Your task to perform on an android device: manage bookmarks in the chrome app Image 0: 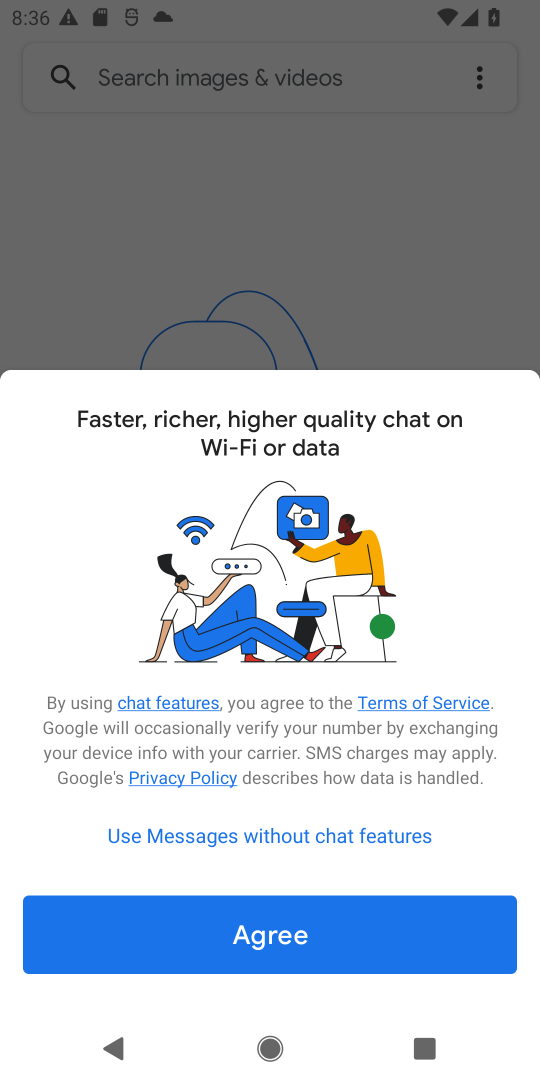
Step 0: press home button
Your task to perform on an android device: manage bookmarks in the chrome app Image 1: 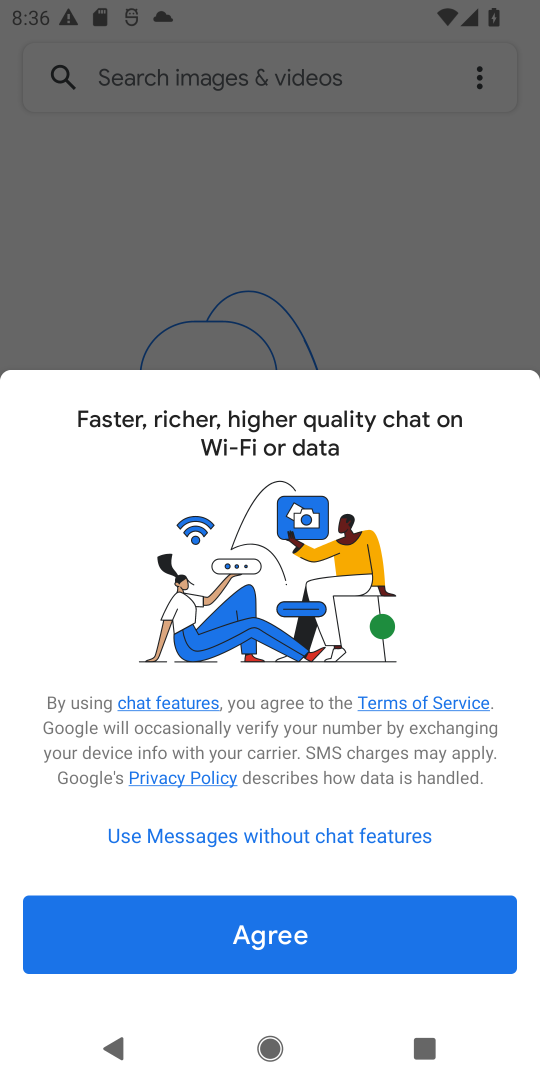
Step 1: press home button
Your task to perform on an android device: manage bookmarks in the chrome app Image 2: 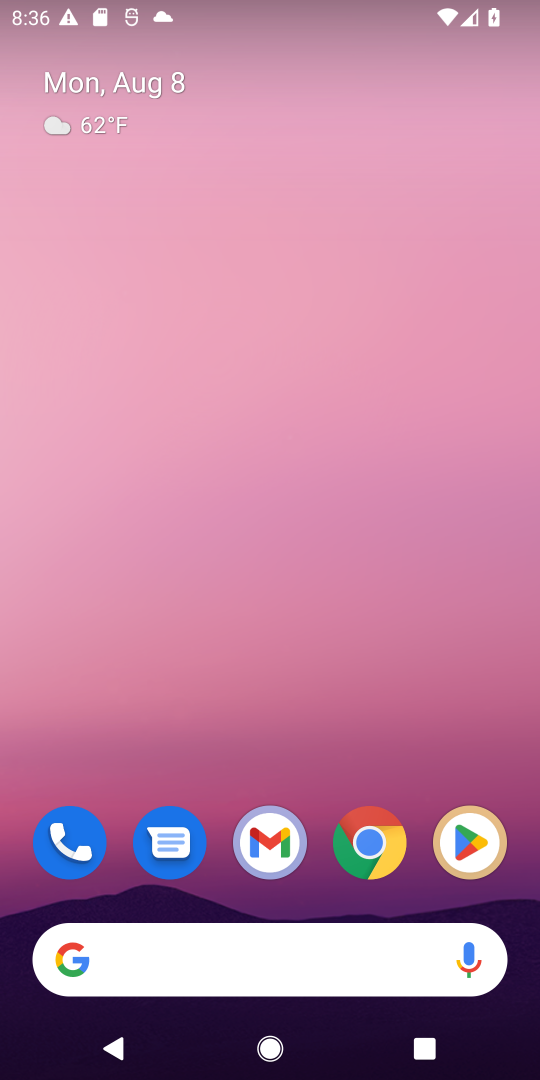
Step 2: click (359, 844)
Your task to perform on an android device: manage bookmarks in the chrome app Image 3: 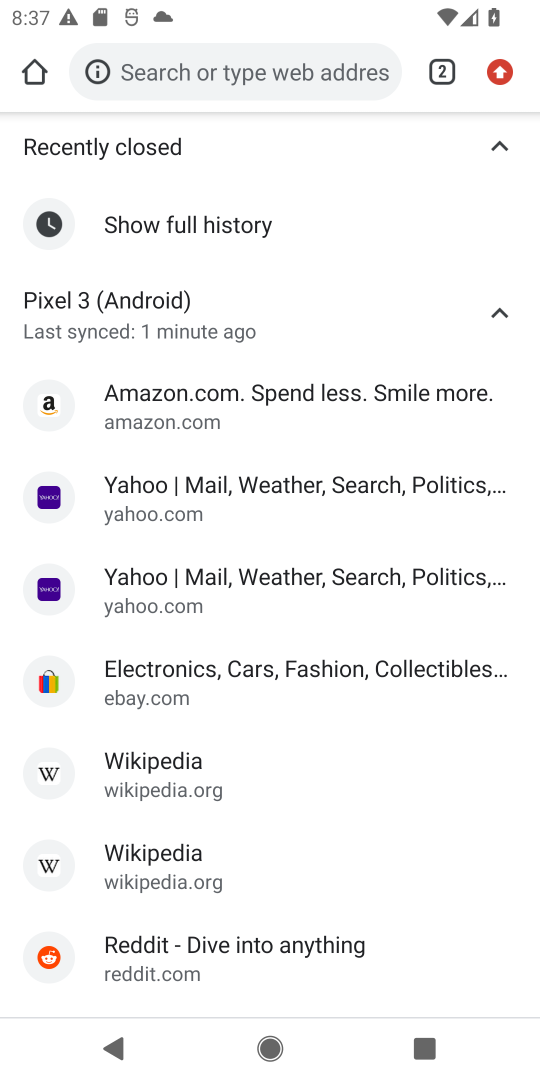
Step 3: click (504, 64)
Your task to perform on an android device: manage bookmarks in the chrome app Image 4: 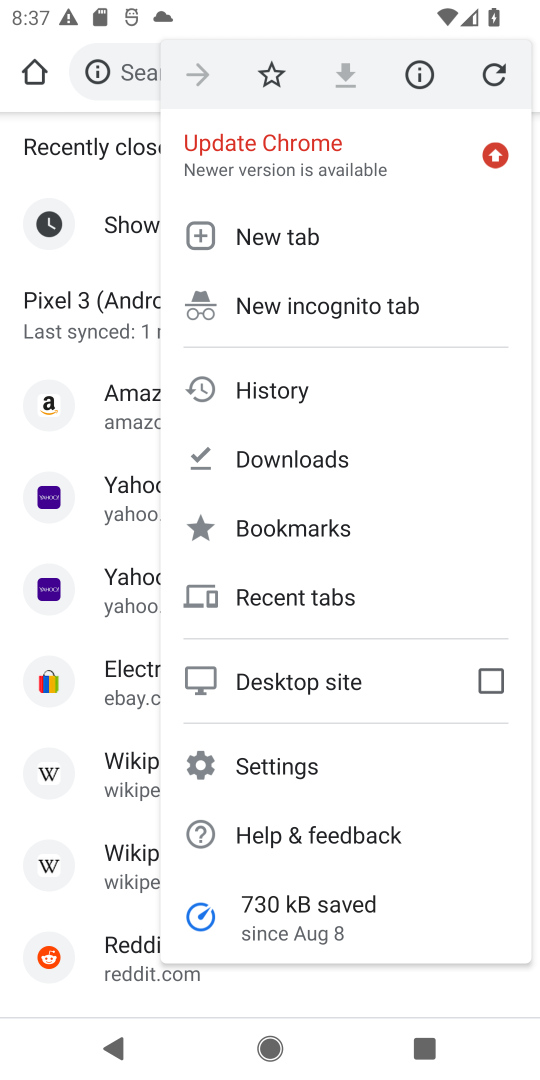
Step 4: click (316, 764)
Your task to perform on an android device: manage bookmarks in the chrome app Image 5: 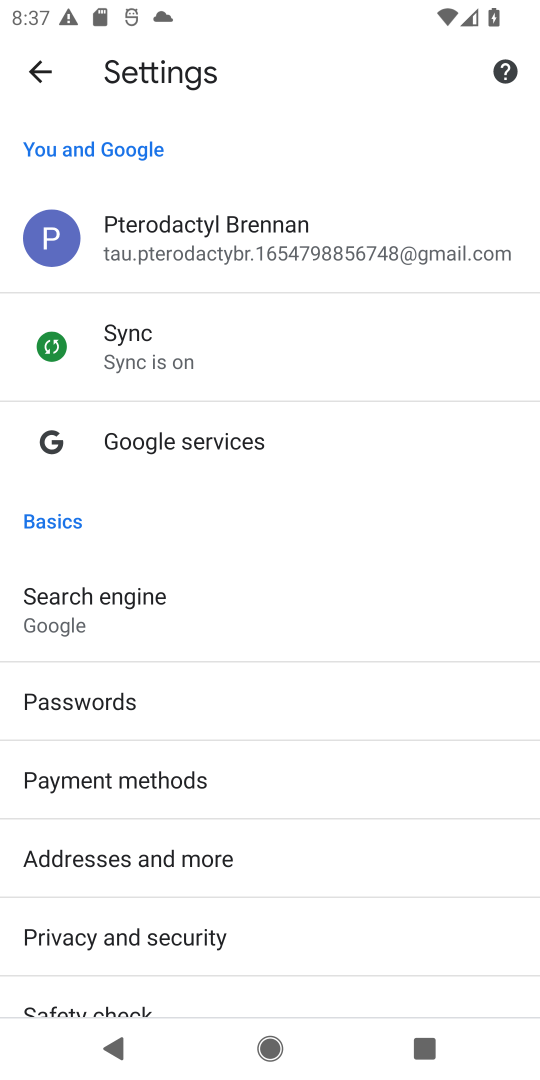
Step 5: click (47, 70)
Your task to perform on an android device: manage bookmarks in the chrome app Image 6: 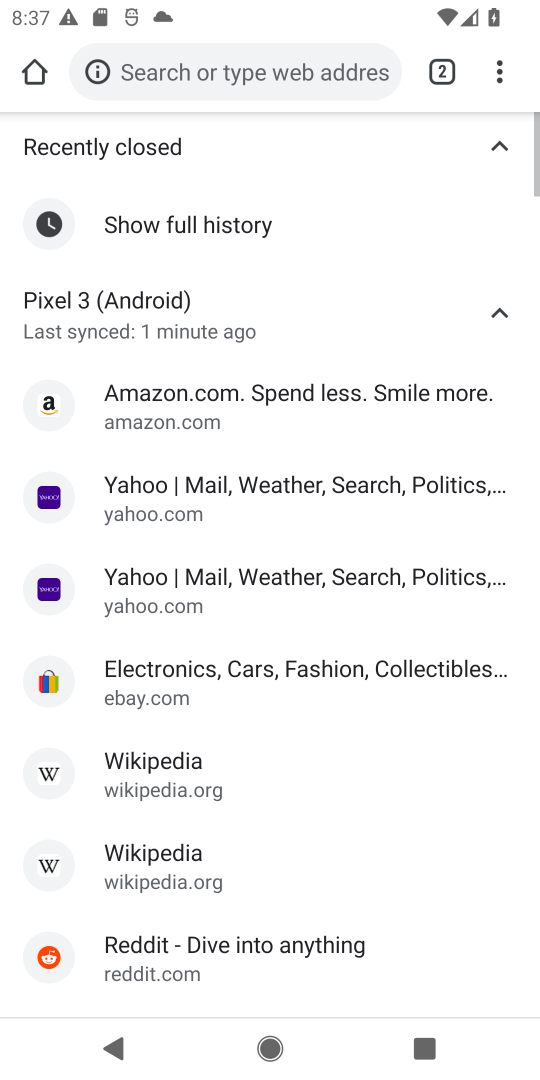
Step 6: press back button
Your task to perform on an android device: manage bookmarks in the chrome app Image 7: 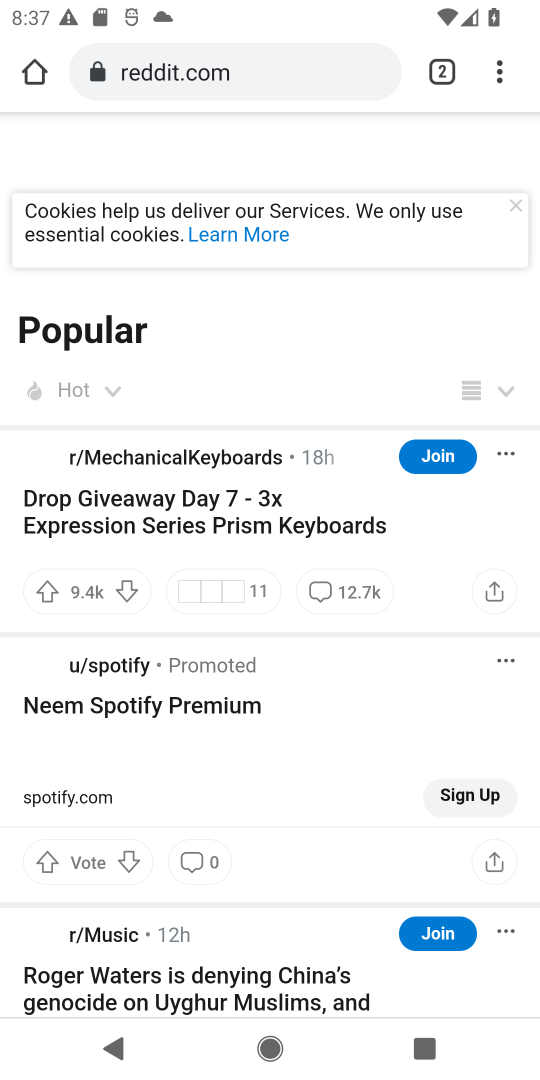
Step 7: click (494, 80)
Your task to perform on an android device: manage bookmarks in the chrome app Image 8: 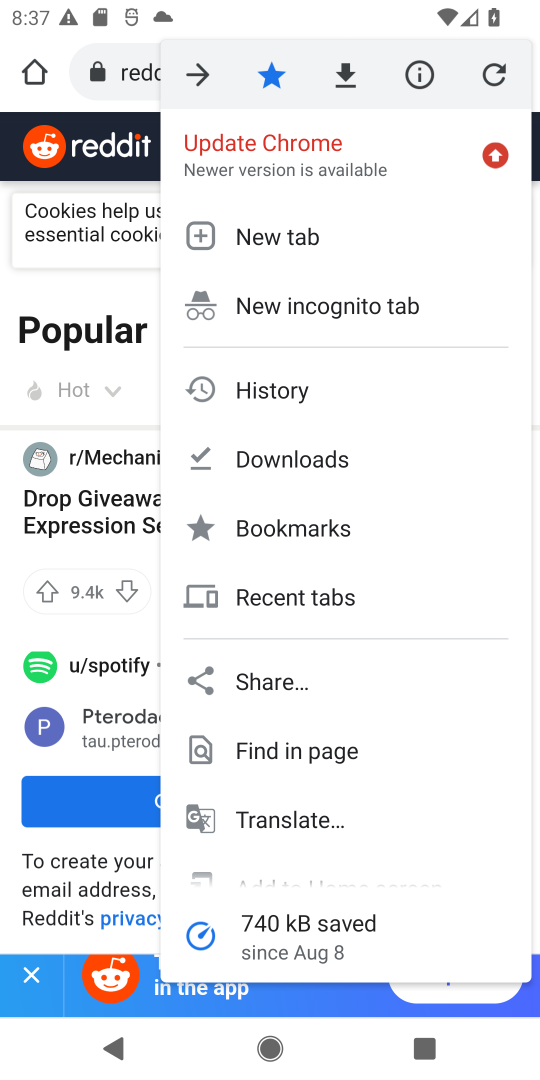
Step 8: click (327, 526)
Your task to perform on an android device: manage bookmarks in the chrome app Image 9: 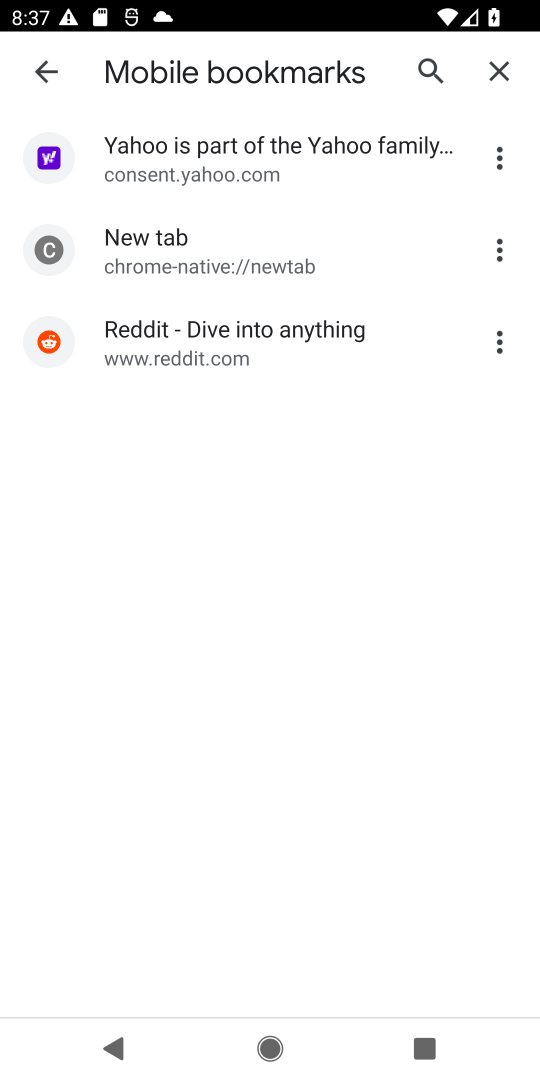
Step 9: click (502, 347)
Your task to perform on an android device: manage bookmarks in the chrome app Image 10: 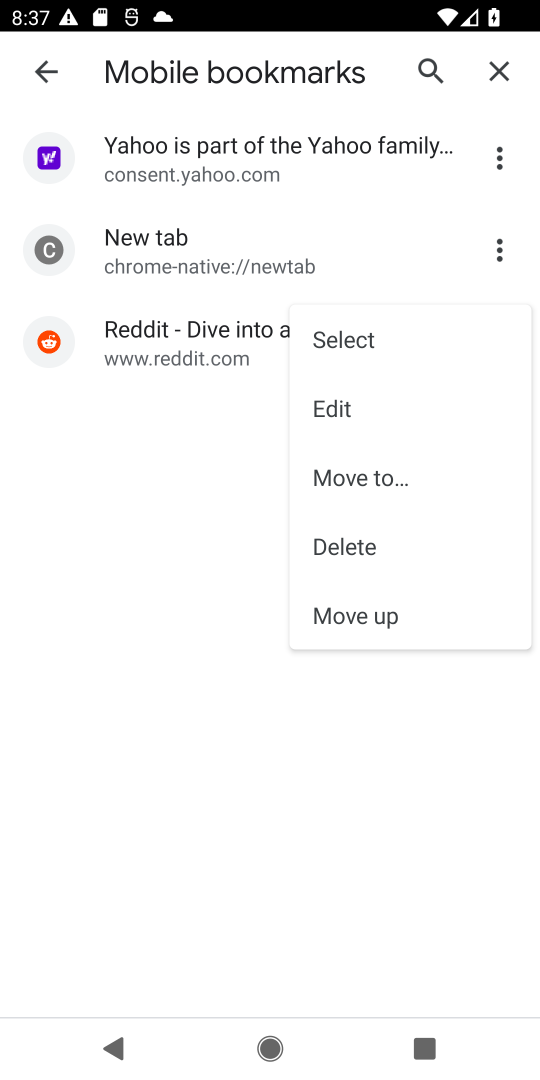
Step 10: click (392, 407)
Your task to perform on an android device: manage bookmarks in the chrome app Image 11: 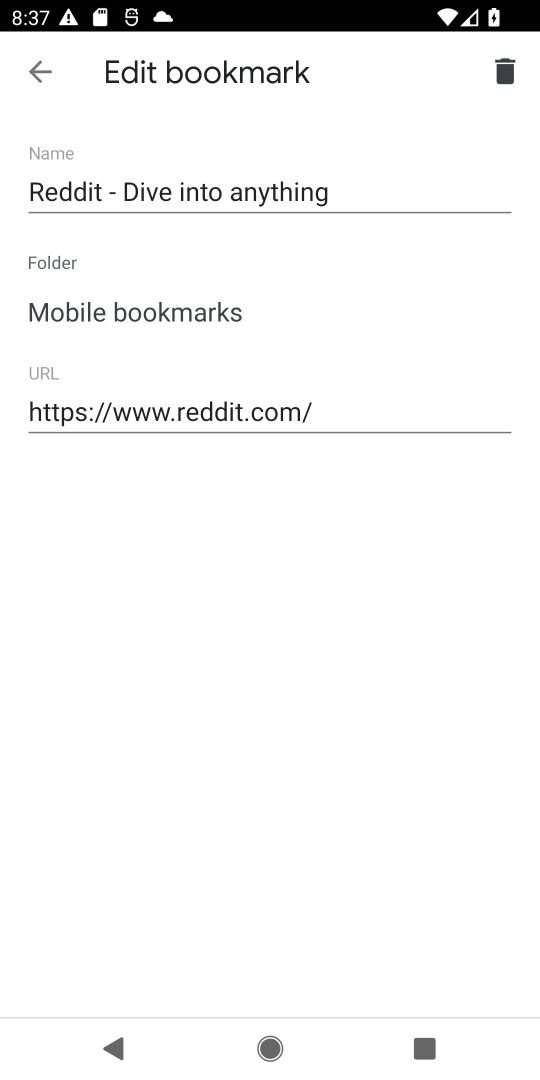
Step 11: task complete